Your task to perform on an android device: When is my next appointment? Image 0: 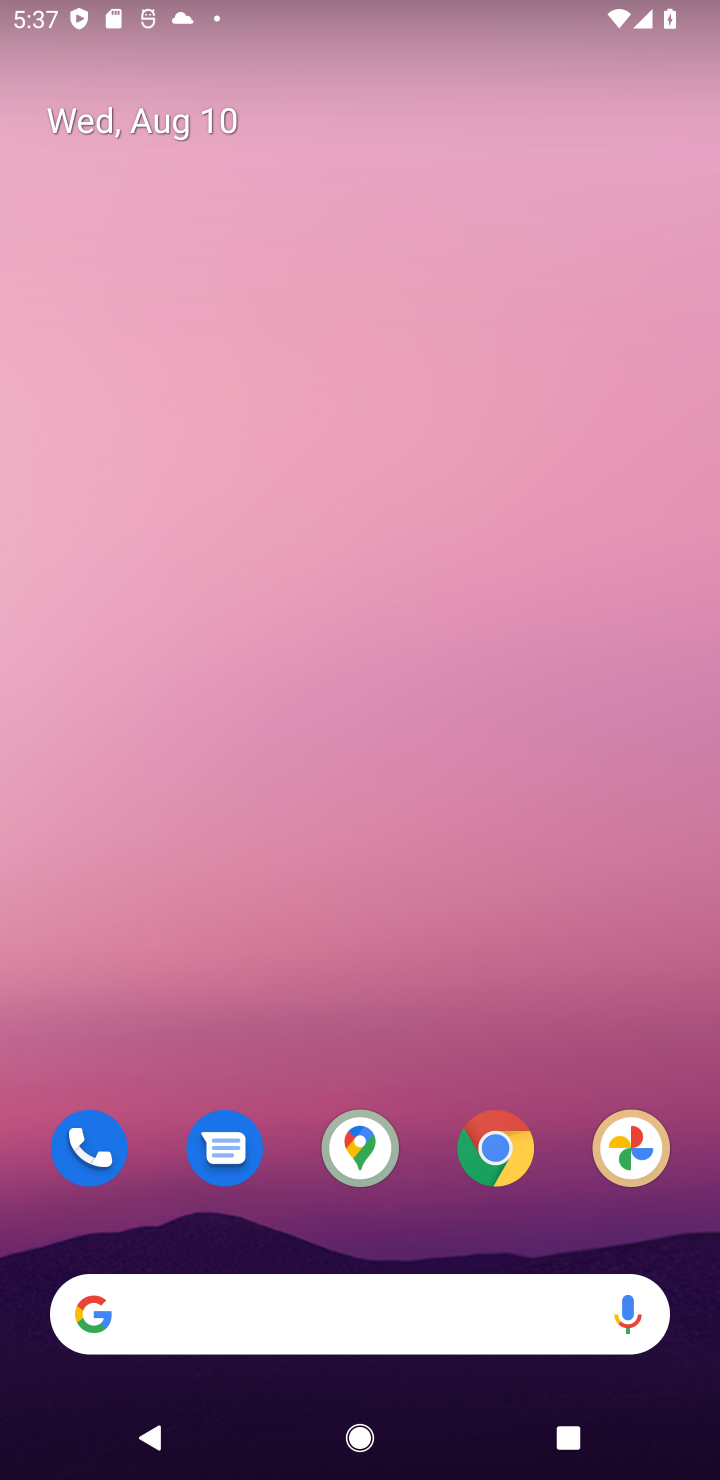
Step 0: click (125, 116)
Your task to perform on an android device: When is my next appointment? Image 1: 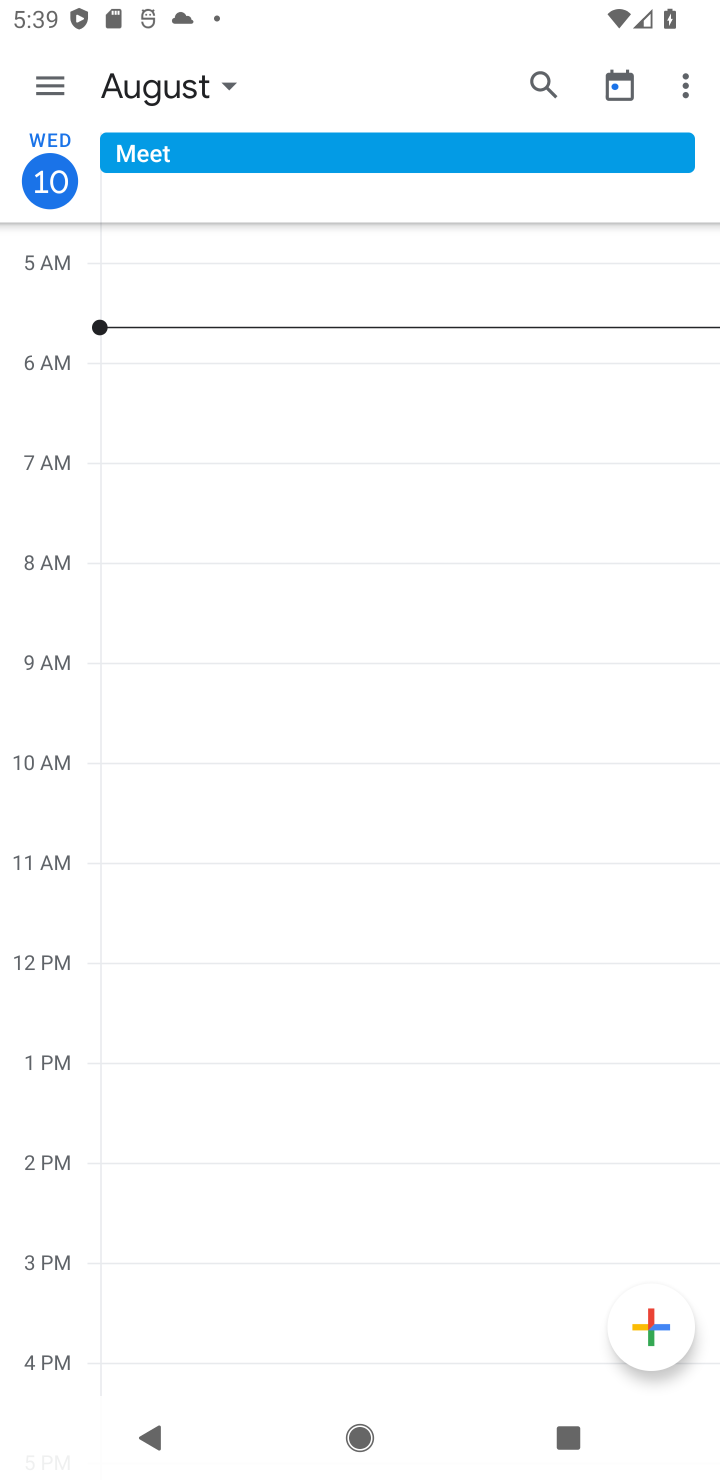
Step 1: click (46, 77)
Your task to perform on an android device: When is my next appointment? Image 2: 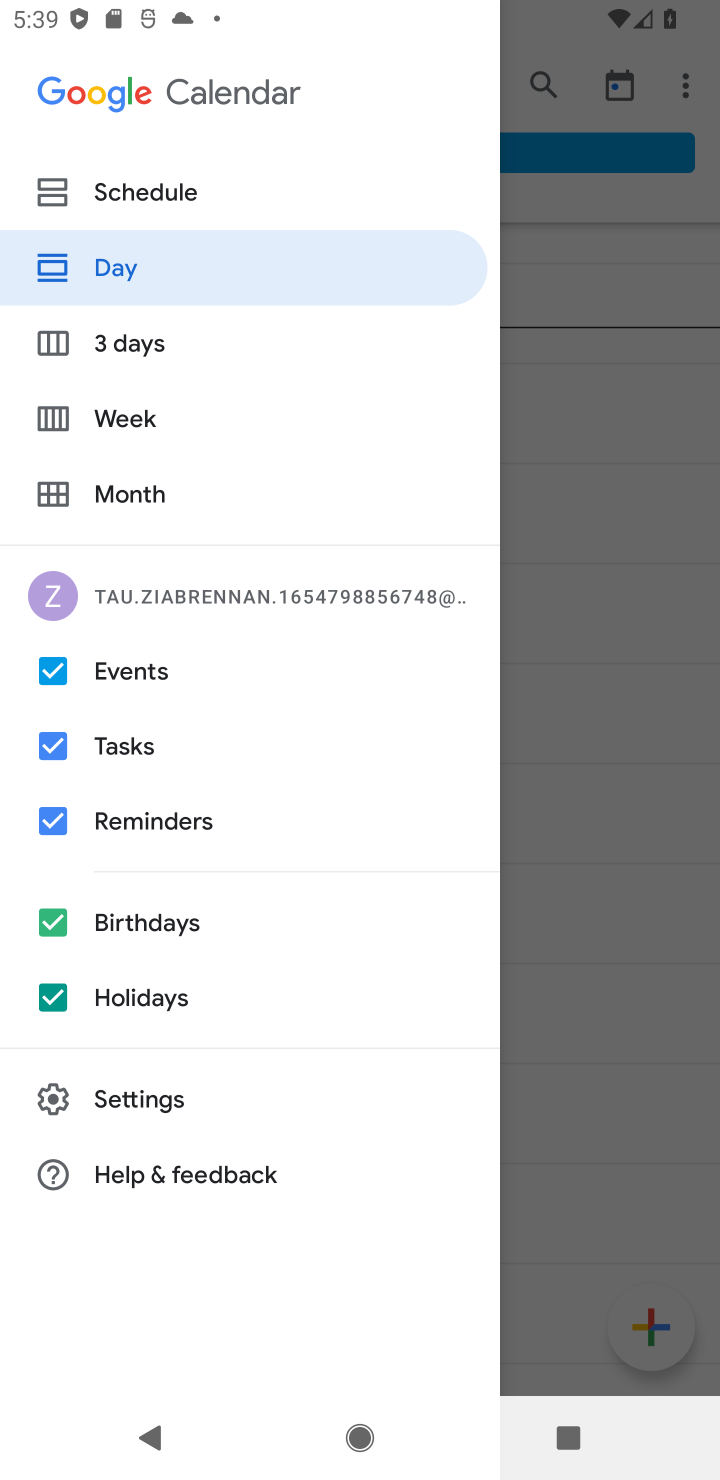
Step 2: click (106, 198)
Your task to perform on an android device: When is my next appointment? Image 3: 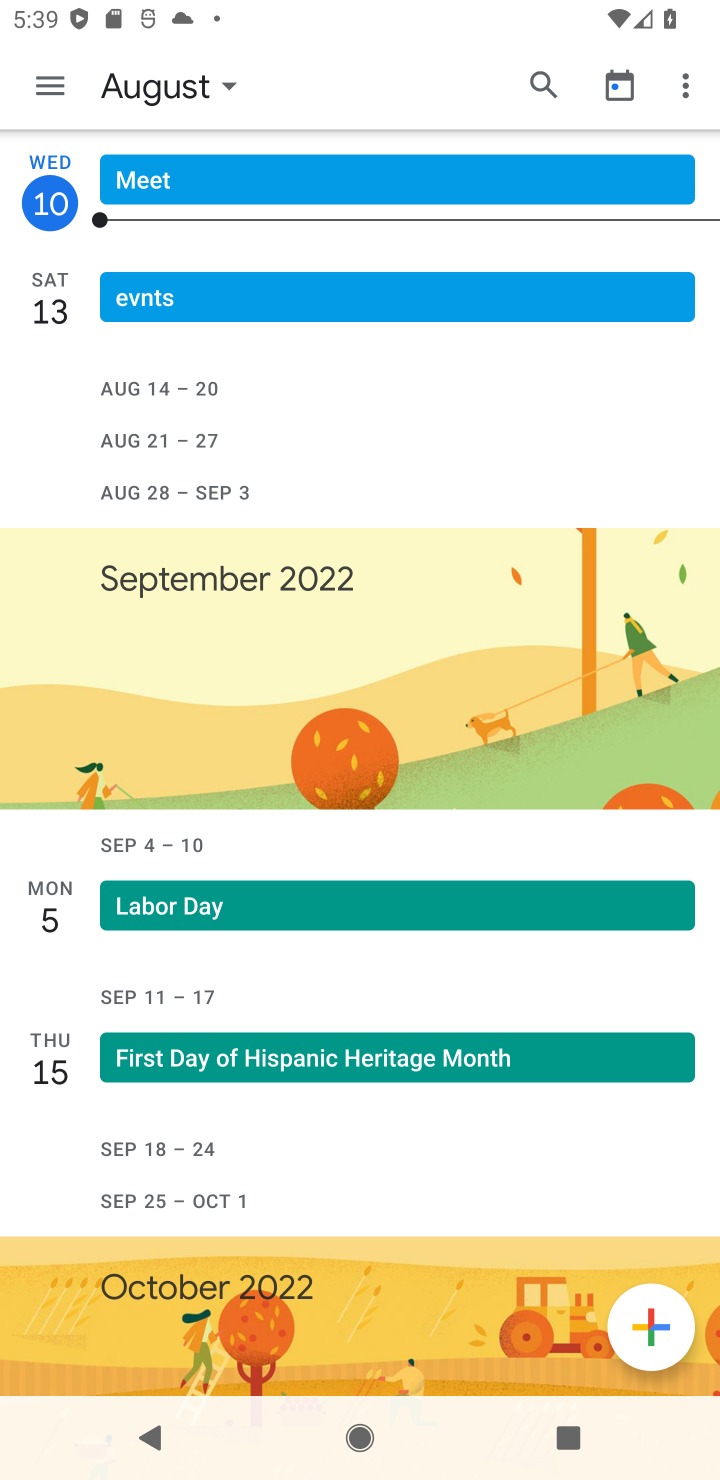
Step 3: task complete